Your task to perform on an android device: find snoozed emails in the gmail app Image 0: 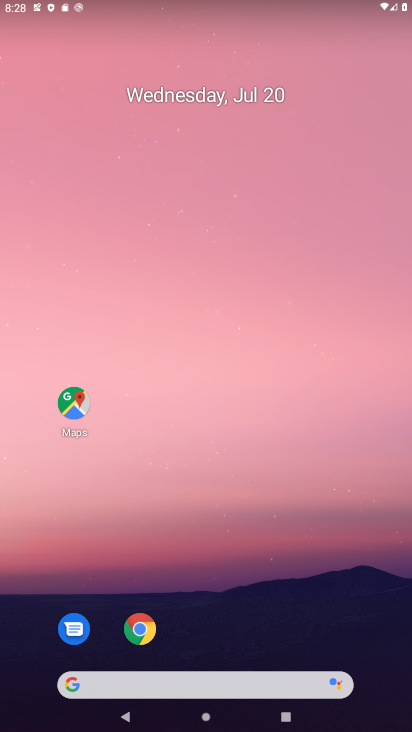
Step 0: drag from (150, 0) to (217, 36)
Your task to perform on an android device: find snoozed emails in the gmail app Image 1: 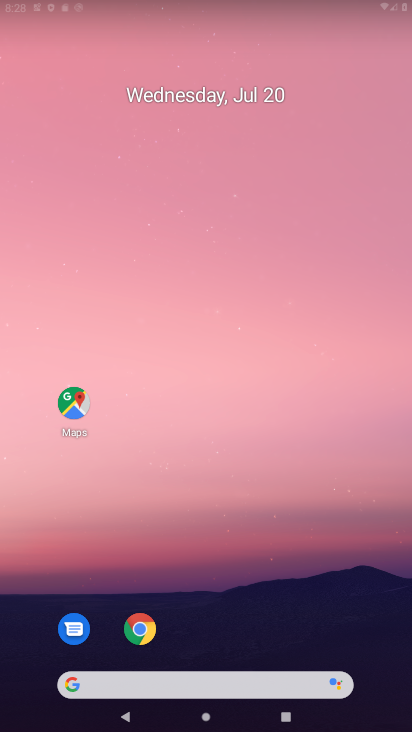
Step 1: drag from (235, 386) to (206, 173)
Your task to perform on an android device: find snoozed emails in the gmail app Image 2: 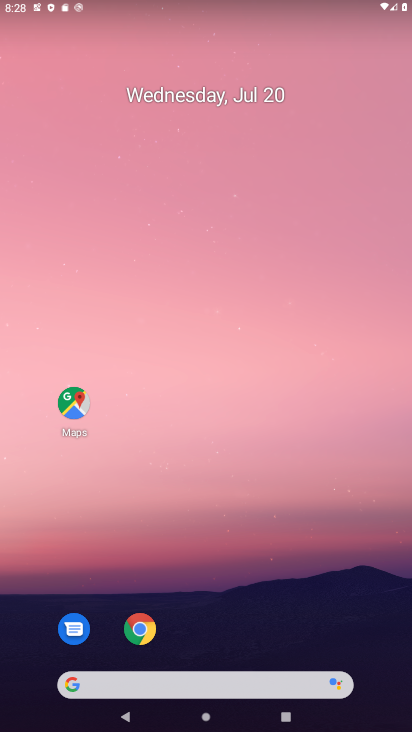
Step 2: drag from (228, 411) to (227, 99)
Your task to perform on an android device: find snoozed emails in the gmail app Image 3: 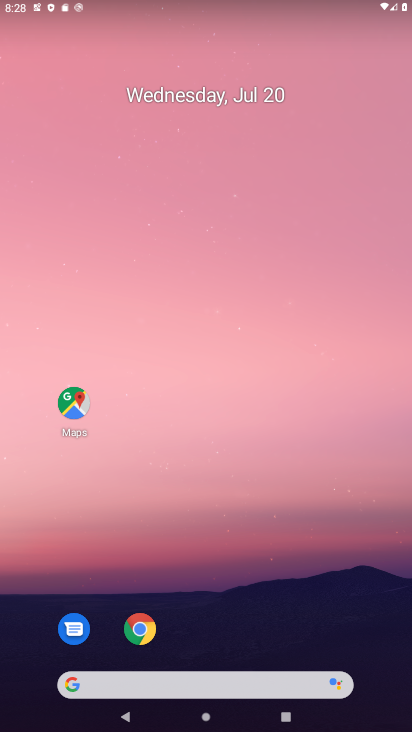
Step 3: click (269, 13)
Your task to perform on an android device: find snoozed emails in the gmail app Image 4: 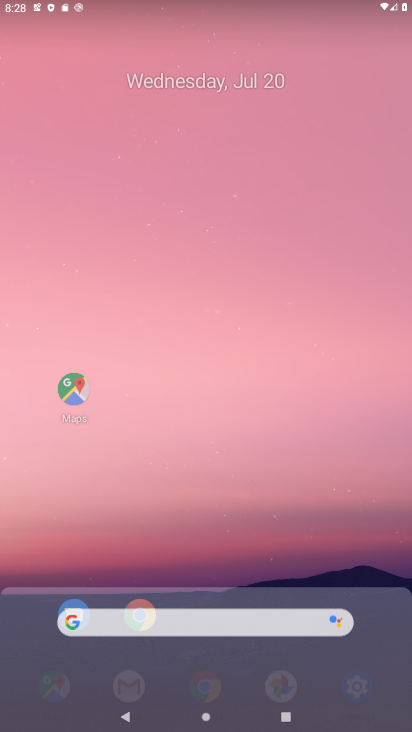
Step 4: drag from (319, 541) to (232, 43)
Your task to perform on an android device: find snoozed emails in the gmail app Image 5: 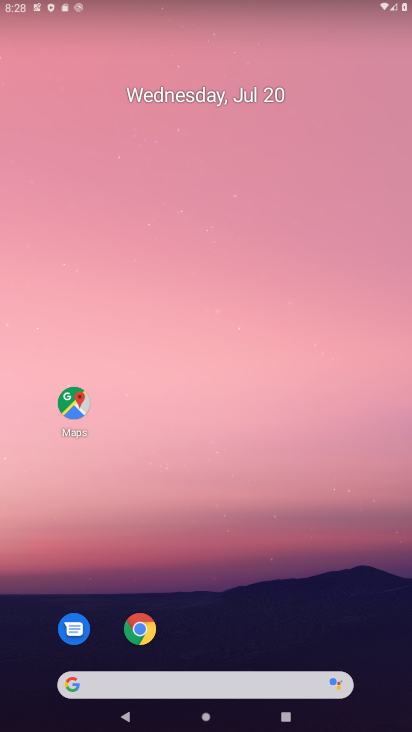
Step 5: drag from (235, 644) to (198, 89)
Your task to perform on an android device: find snoozed emails in the gmail app Image 6: 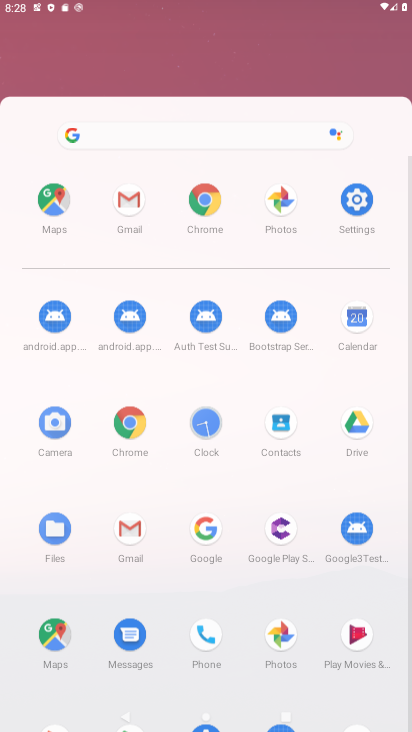
Step 6: drag from (204, 533) to (117, 52)
Your task to perform on an android device: find snoozed emails in the gmail app Image 7: 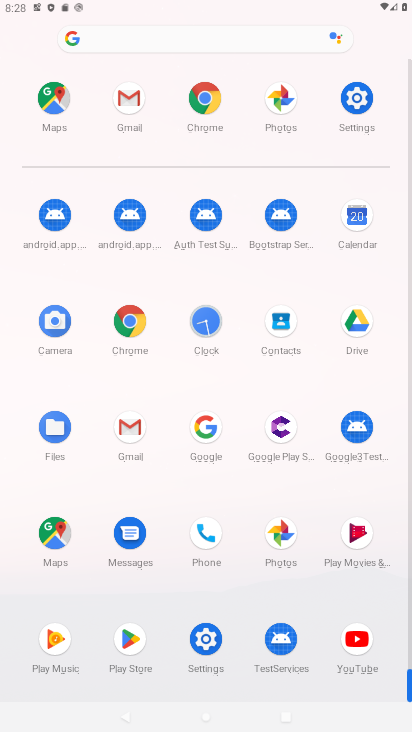
Step 7: click (119, 101)
Your task to perform on an android device: find snoozed emails in the gmail app Image 8: 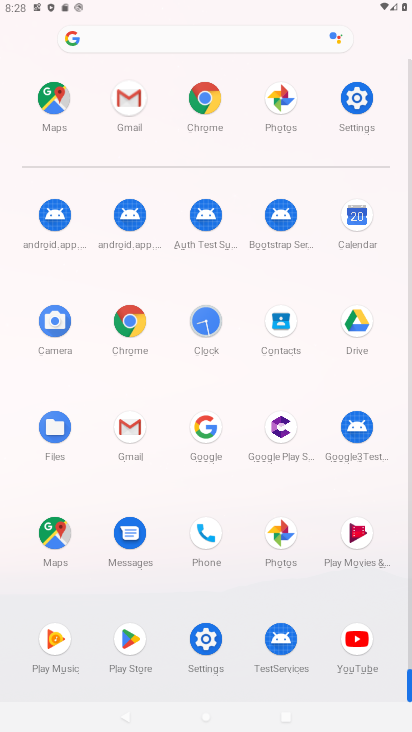
Step 8: click (129, 102)
Your task to perform on an android device: find snoozed emails in the gmail app Image 9: 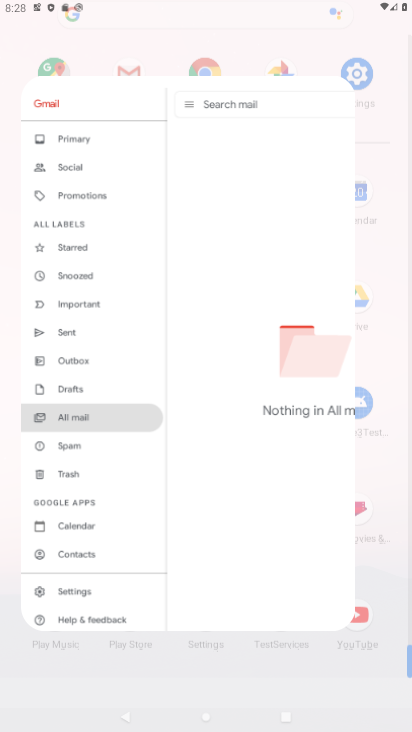
Step 9: click (131, 103)
Your task to perform on an android device: find snoozed emails in the gmail app Image 10: 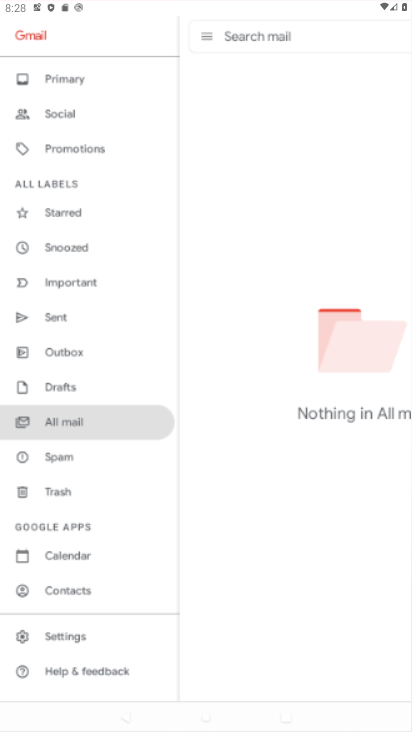
Step 10: click (136, 106)
Your task to perform on an android device: find snoozed emails in the gmail app Image 11: 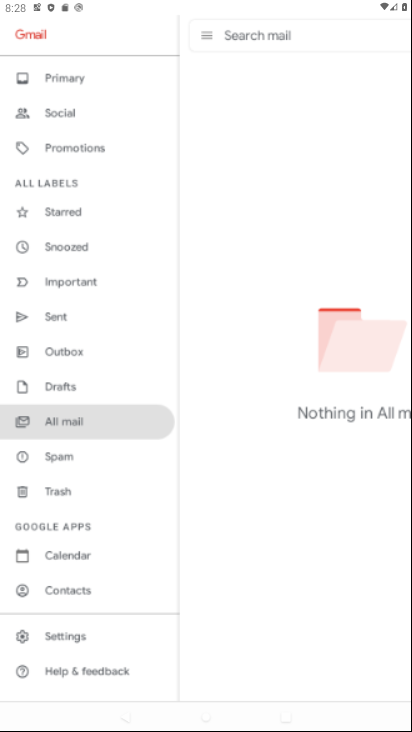
Step 11: click (136, 106)
Your task to perform on an android device: find snoozed emails in the gmail app Image 12: 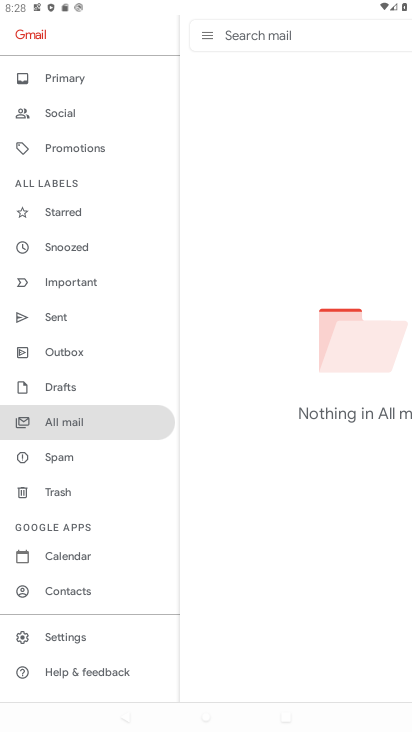
Step 12: click (70, 244)
Your task to perform on an android device: find snoozed emails in the gmail app Image 13: 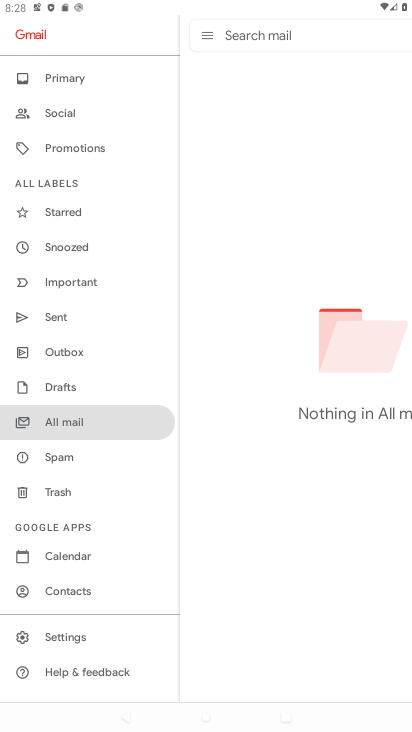
Step 13: click (74, 249)
Your task to perform on an android device: find snoozed emails in the gmail app Image 14: 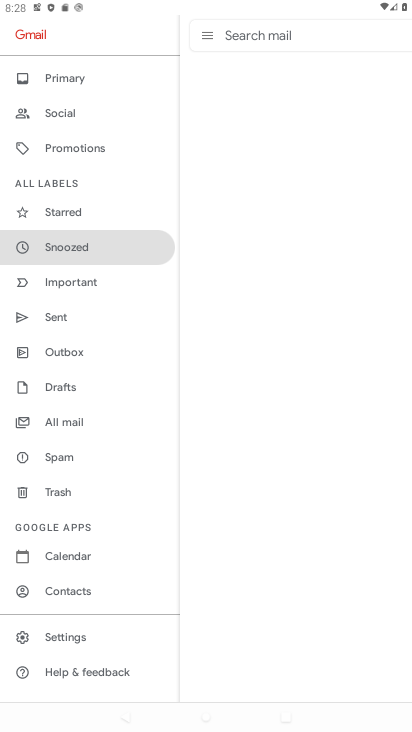
Step 14: click (74, 249)
Your task to perform on an android device: find snoozed emails in the gmail app Image 15: 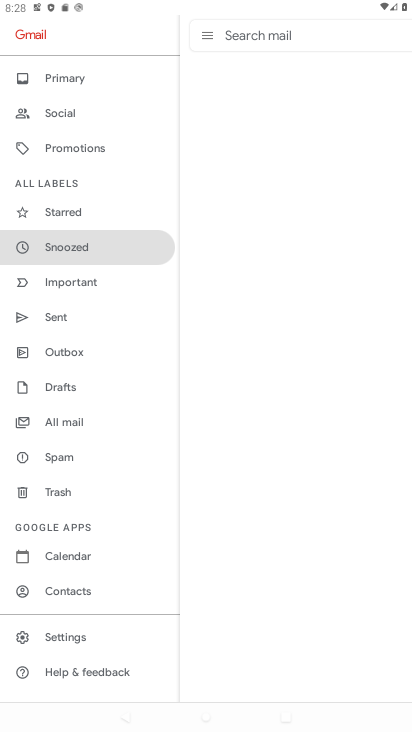
Step 15: click (75, 251)
Your task to perform on an android device: find snoozed emails in the gmail app Image 16: 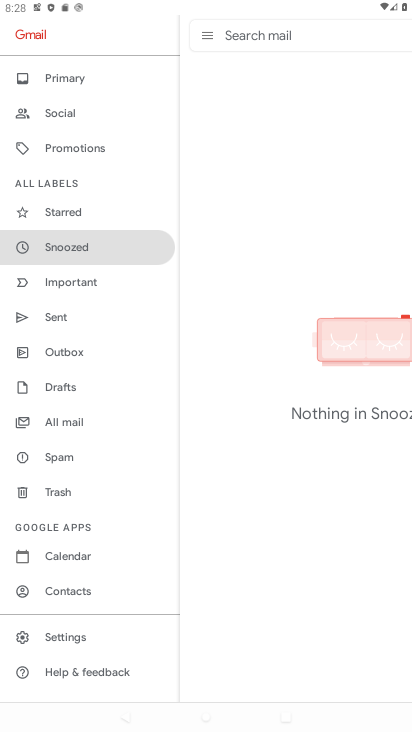
Step 16: click (84, 245)
Your task to perform on an android device: find snoozed emails in the gmail app Image 17: 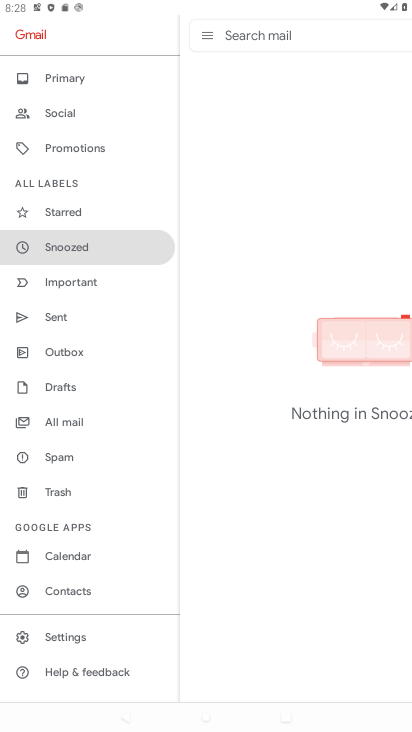
Step 17: click (88, 246)
Your task to perform on an android device: find snoozed emails in the gmail app Image 18: 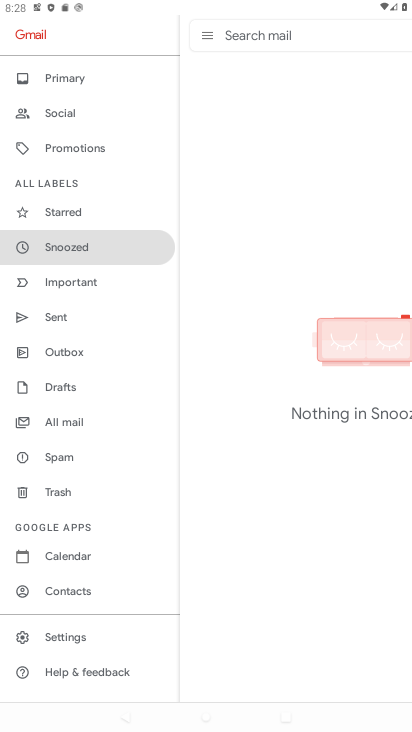
Step 18: click (89, 246)
Your task to perform on an android device: find snoozed emails in the gmail app Image 19: 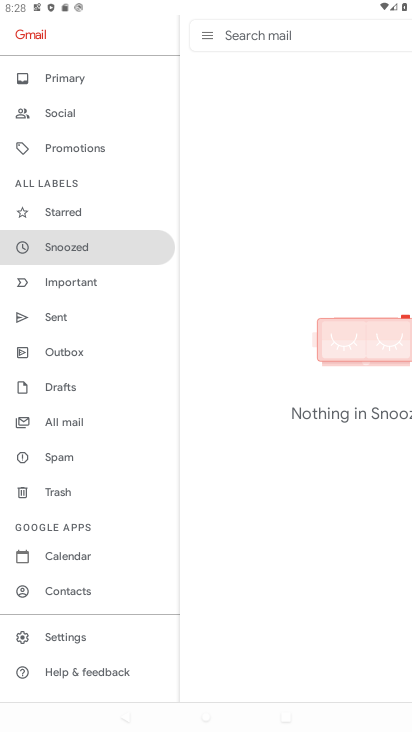
Step 19: click (89, 246)
Your task to perform on an android device: find snoozed emails in the gmail app Image 20: 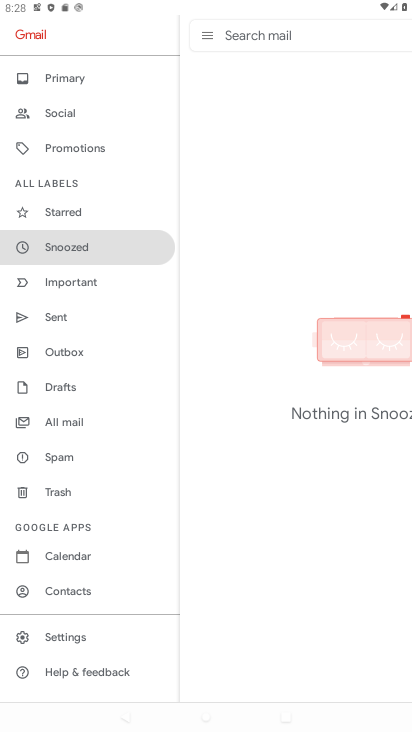
Step 20: click (91, 246)
Your task to perform on an android device: find snoozed emails in the gmail app Image 21: 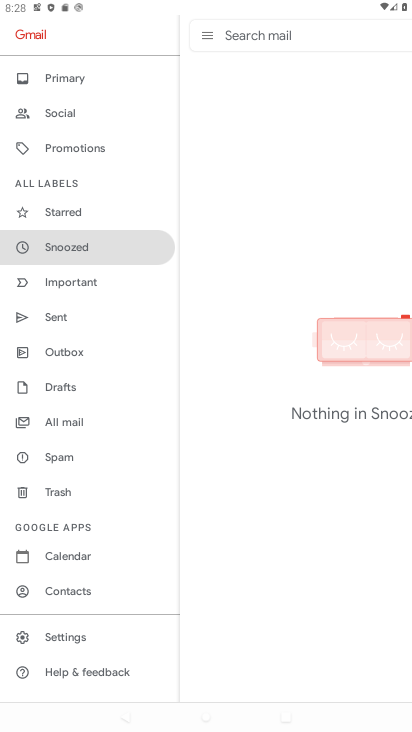
Step 21: click (66, 242)
Your task to perform on an android device: find snoozed emails in the gmail app Image 22: 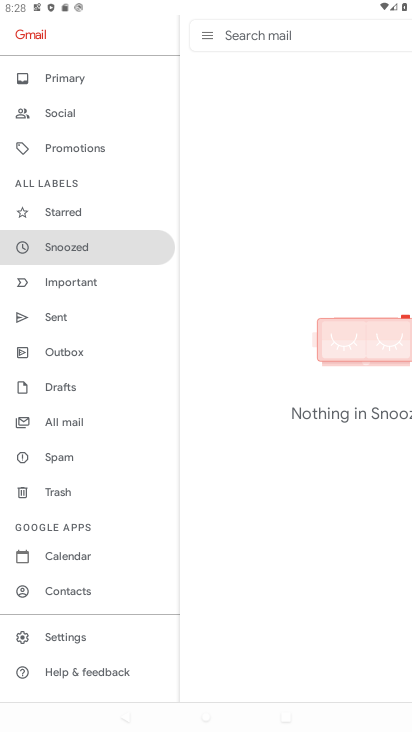
Step 22: click (65, 241)
Your task to perform on an android device: find snoozed emails in the gmail app Image 23: 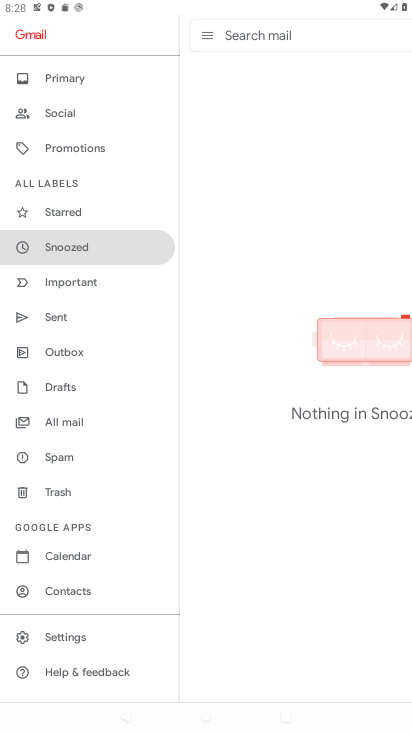
Step 23: click (40, 241)
Your task to perform on an android device: find snoozed emails in the gmail app Image 24: 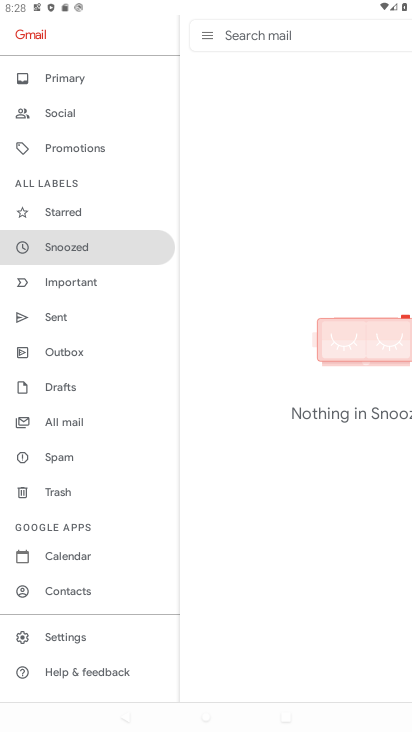
Step 24: click (41, 241)
Your task to perform on an android device: find snoozed emails in the gmail app Image 25: 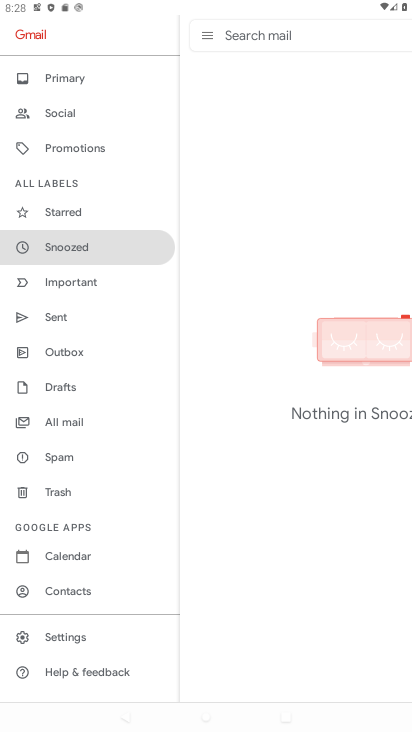
Step 25: click (51, 245)
Your task to perform on an android device: find snoozed emails in the gmail app Image 26: 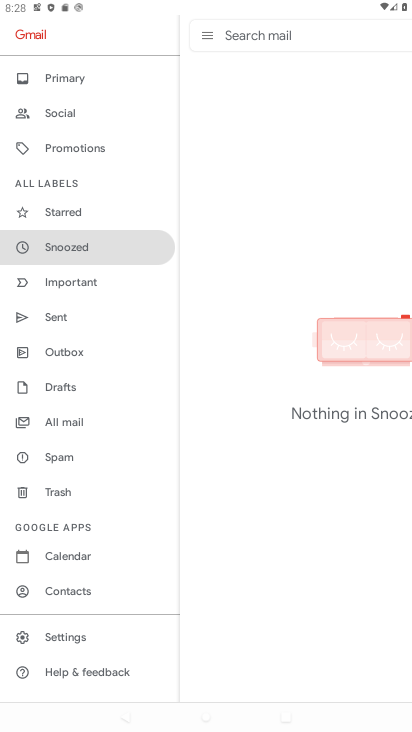
Step 26: click (64, 242)
Your task to perform on an android device: find snoozed emails in the gmail app Image 27: 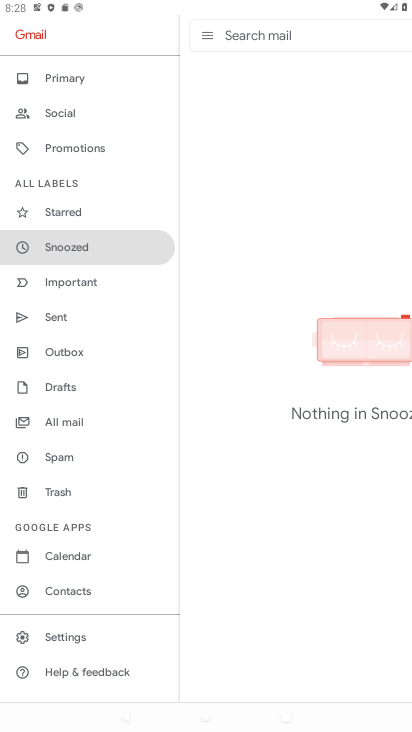
Step 27: click (68, 242)
Your task to perform on an android device: find snoozed emails in the gmail app Image 28: 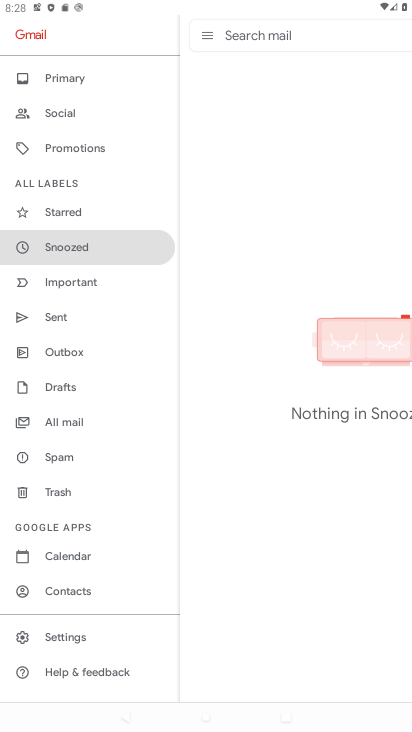
Step 28: click (82, 249)
Your task to perform on an android device: find snoozed emails in the gmail app Image 29: 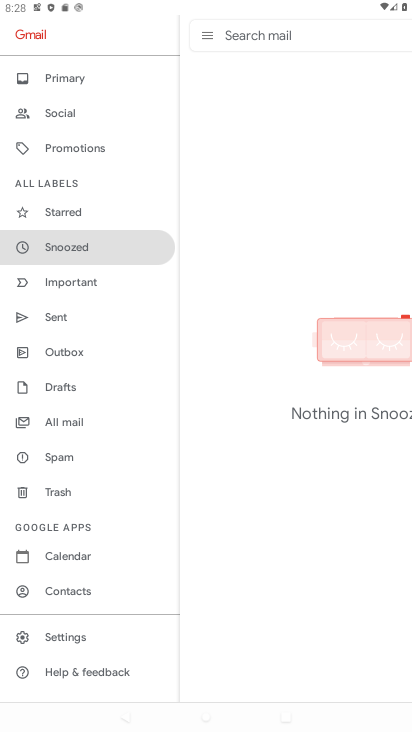
Step 29: click (103, 240)
Your task to perform on an android device: find snoozed emails in the gmail app Image 30: 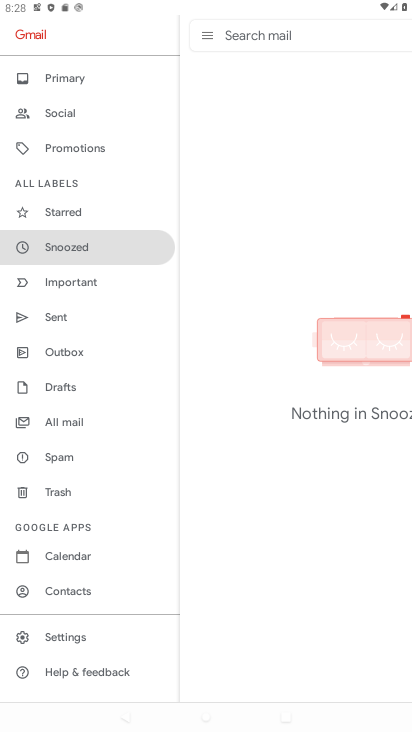
Step 30: click (105, 241)
Your task to perform on an android device: find snoozed emails in the gmail app Image 31: 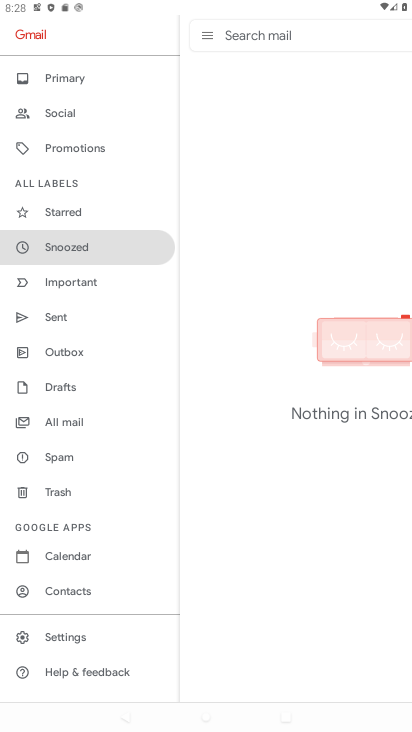
Step 31: task complete